Your task to perform on an android device: Search for pizza restaurants on Maps Image 0: 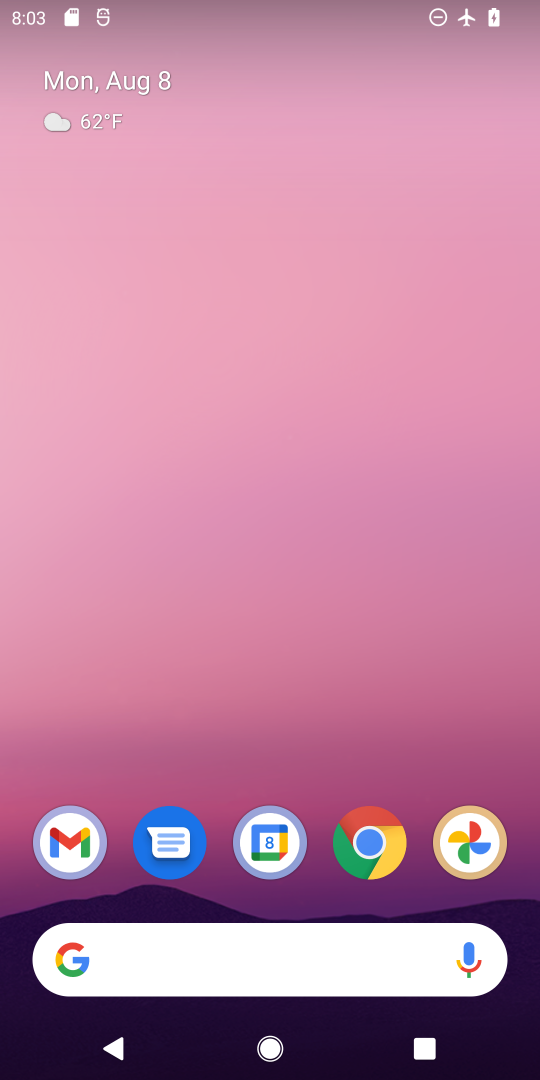
Step 0: drag from (320, 917) to (241, 40)
Your task to perform on an android device: Search for pizza restaurants on Maps Image 1: 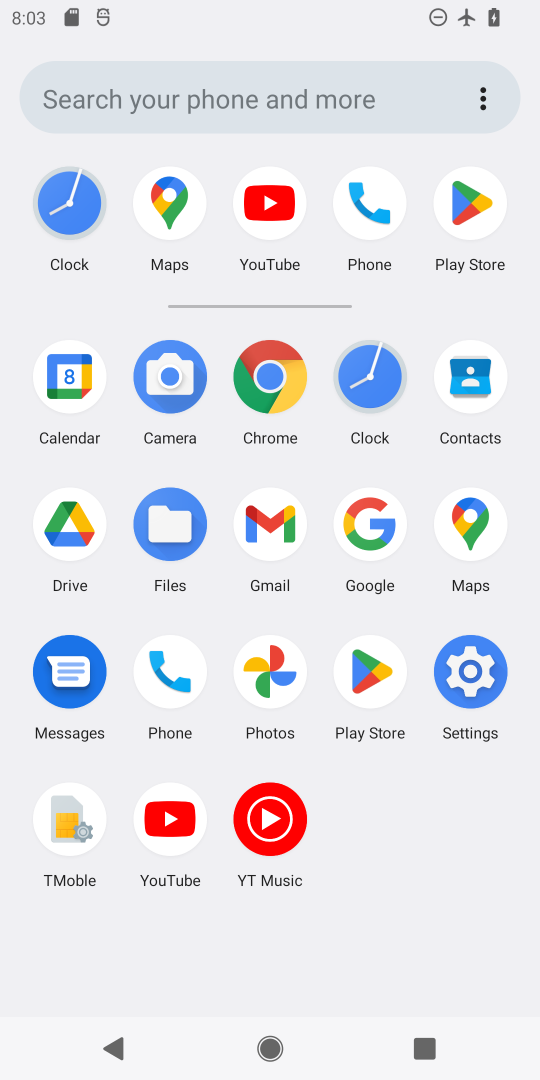
Step 1: click (487, 533)
Your task to perform on an android device: Search for pizza restaurants on Maps Image 2: 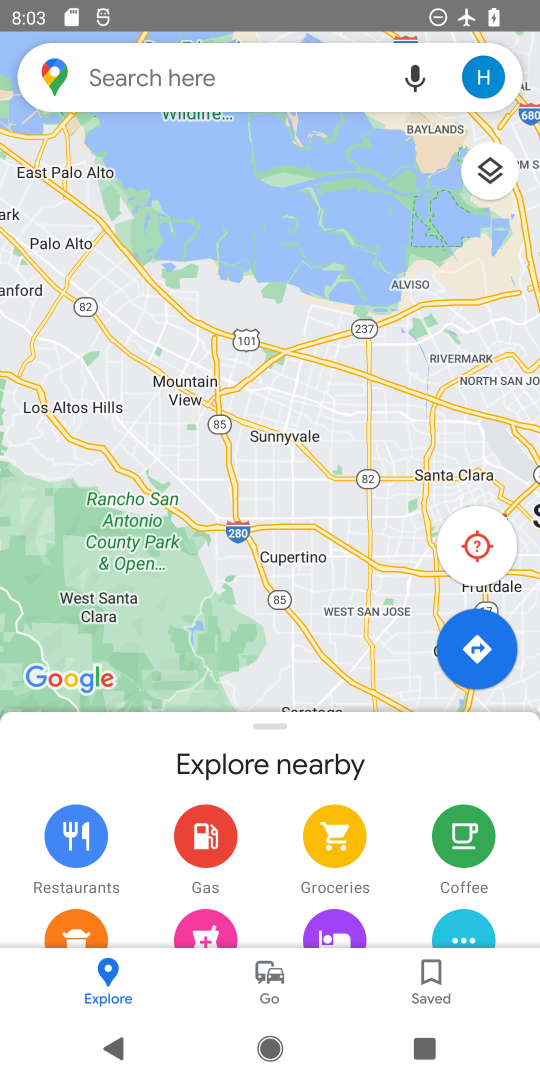
Step 2: click (222, 99)
Your task to perform on an android device: Search for pizza restaurants on Maps Image 3: 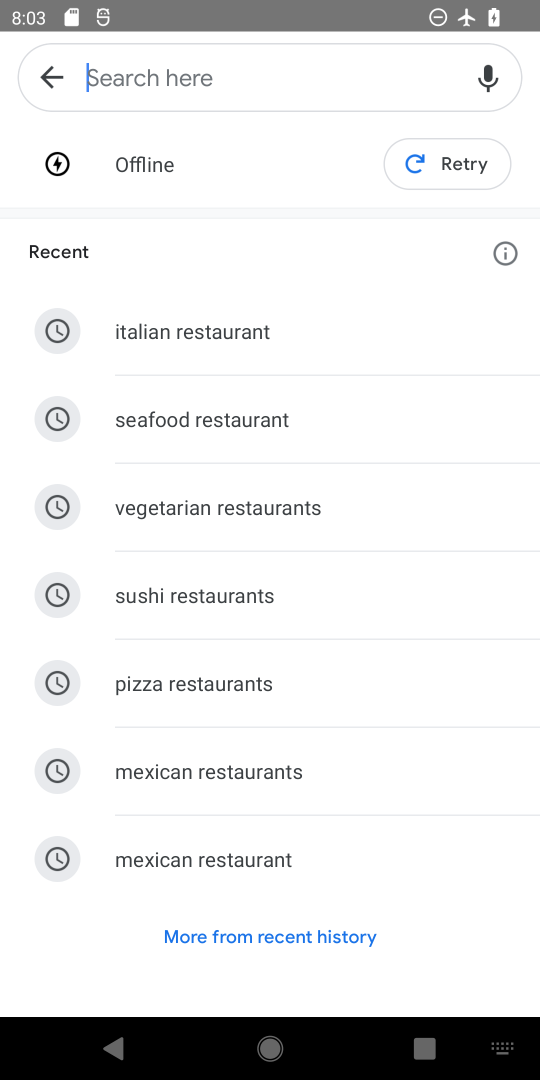
Step 3: click (186, 693)
Your task to perform on an android device: Search for pizza restaurants on Maps Image 4: 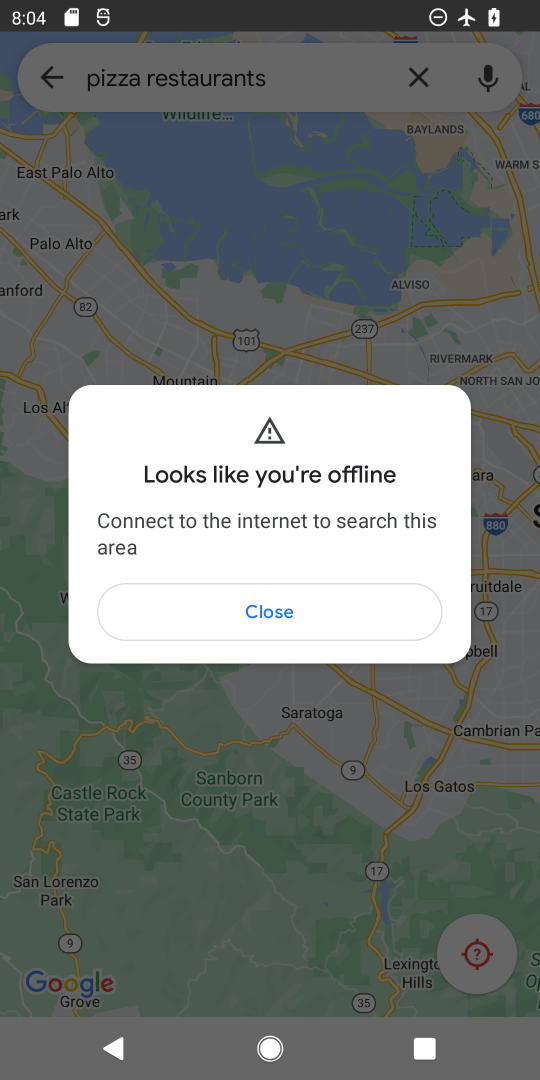
Step 4: click (256, 625)
Your task to perform on an android device: Search for pizza restaurants on Maps Image 5: 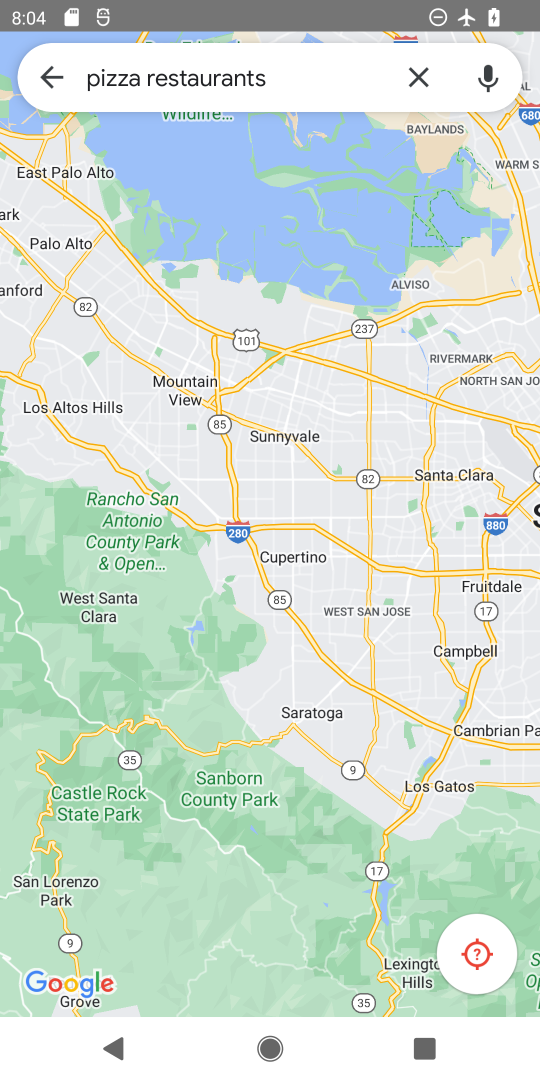
Step 5: task complete